Your task to perform on an android device: open app "Grab" (install if not already installed) Image 0: 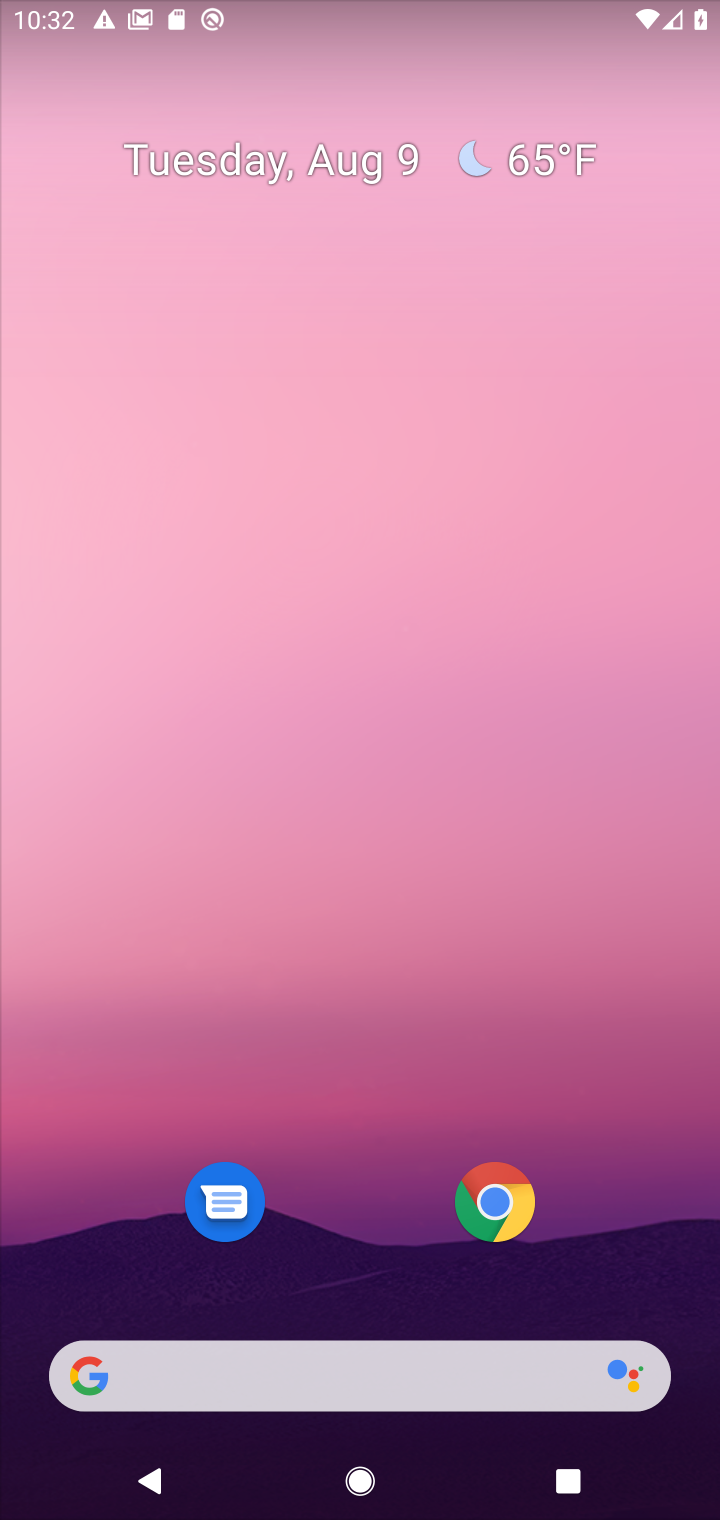
Step 0: drag from (313, 1301) to (267, 12)
Your task to perform on an android device: open app "Grab" (install if not already installed) Image 1: 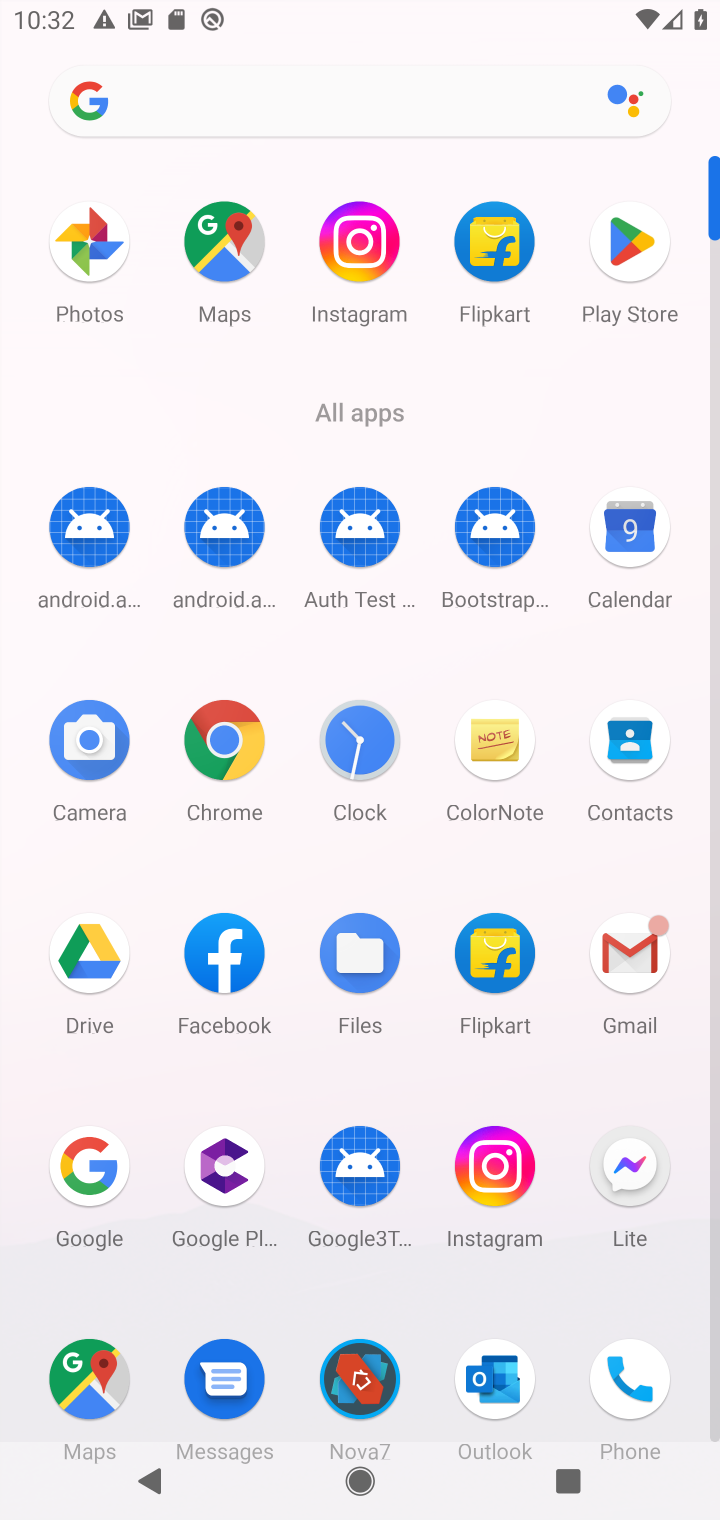
Step 1: click (629, 239)
Your task to perform on an android device: open app "Grab" (install if not already installed) Image 2: 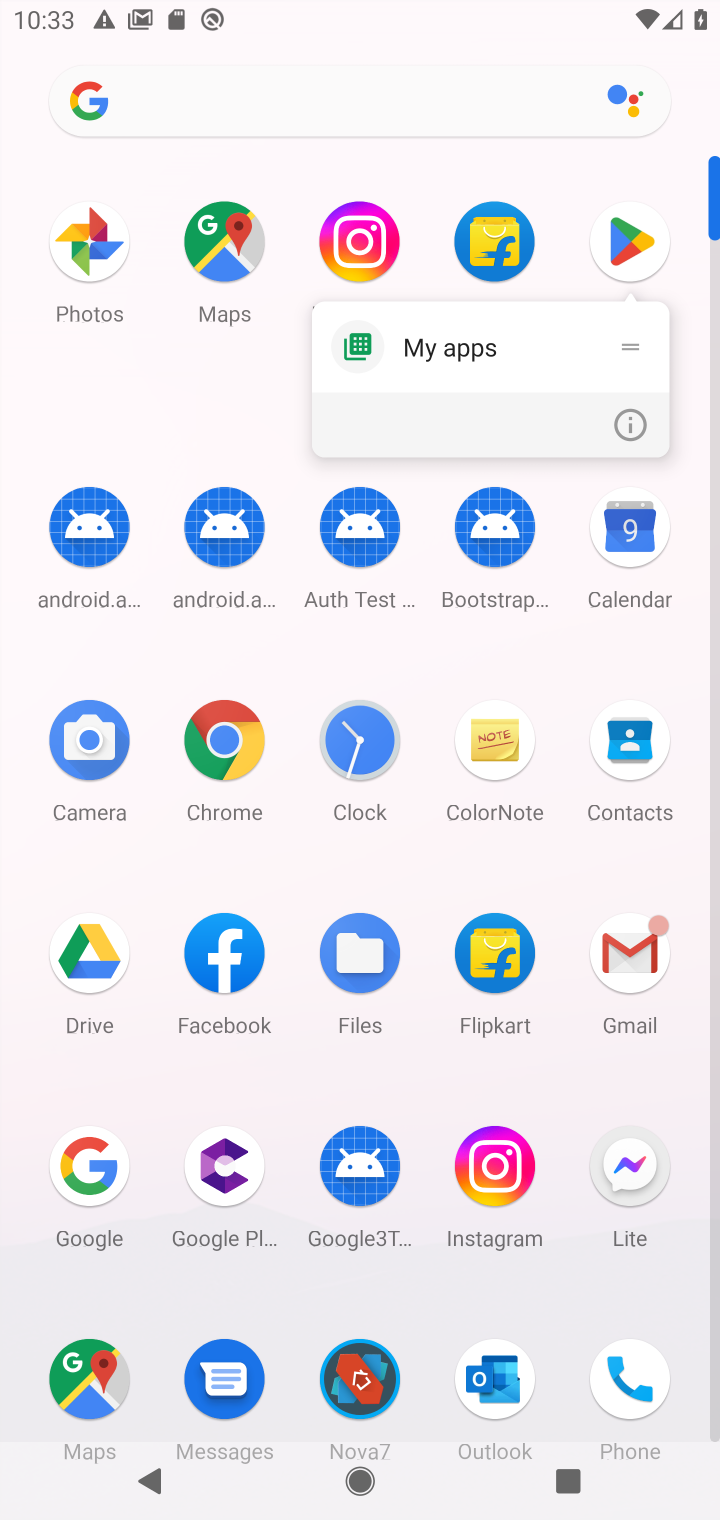
Step 2: click (622, 202)
Your task to perform on an android device: open app "Grab" (install if not already installed) Image 3: 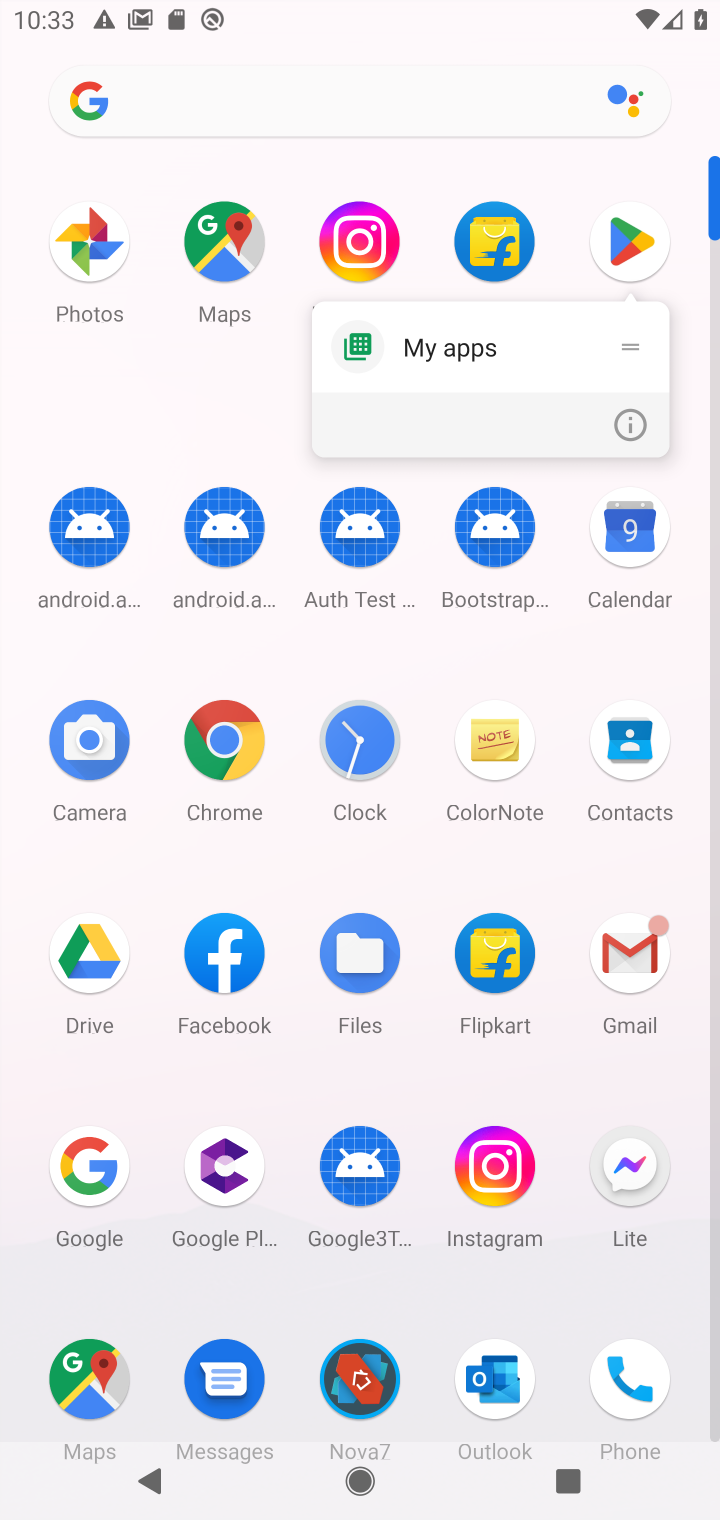
Step 3: click (598, 230)
Your task to perform on an android device: open app "Grab" (install if not already installed) Image 4: 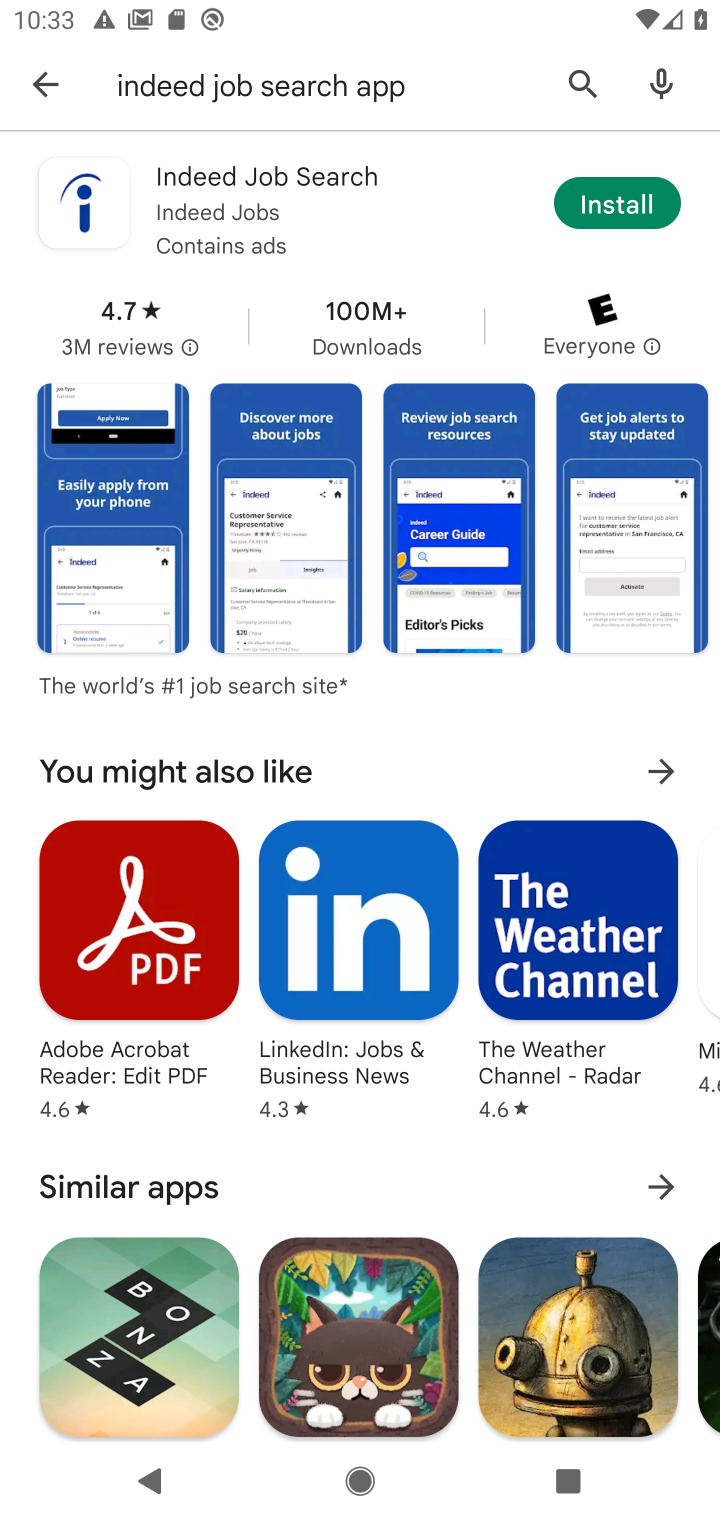
Step 4: click (585, 76)
Your task to perform on an android device: open app "Grab" (install if not already installed) Image 5: 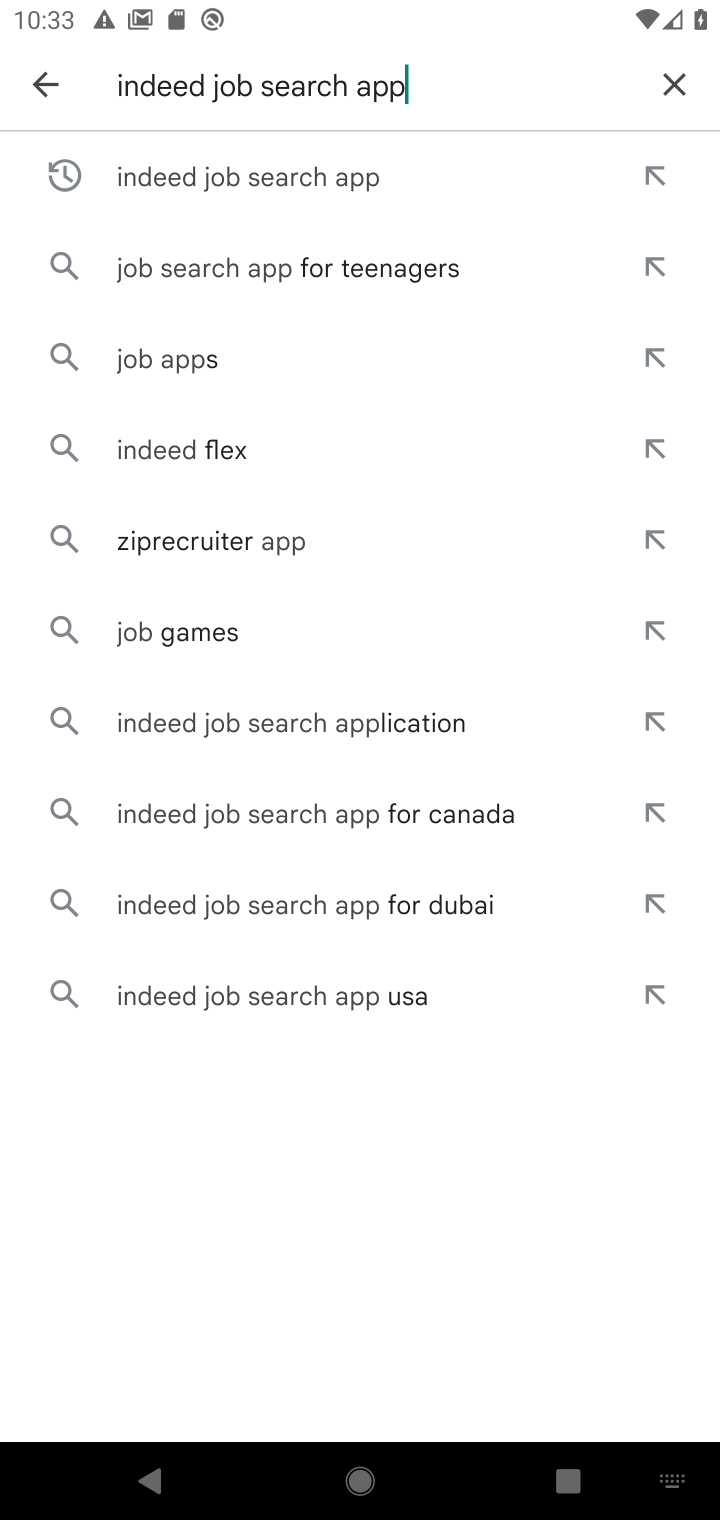
Step 5: click (656, 98)
Your task to perform on an android device: open app "Grab" (install if not already installed) Image 6: 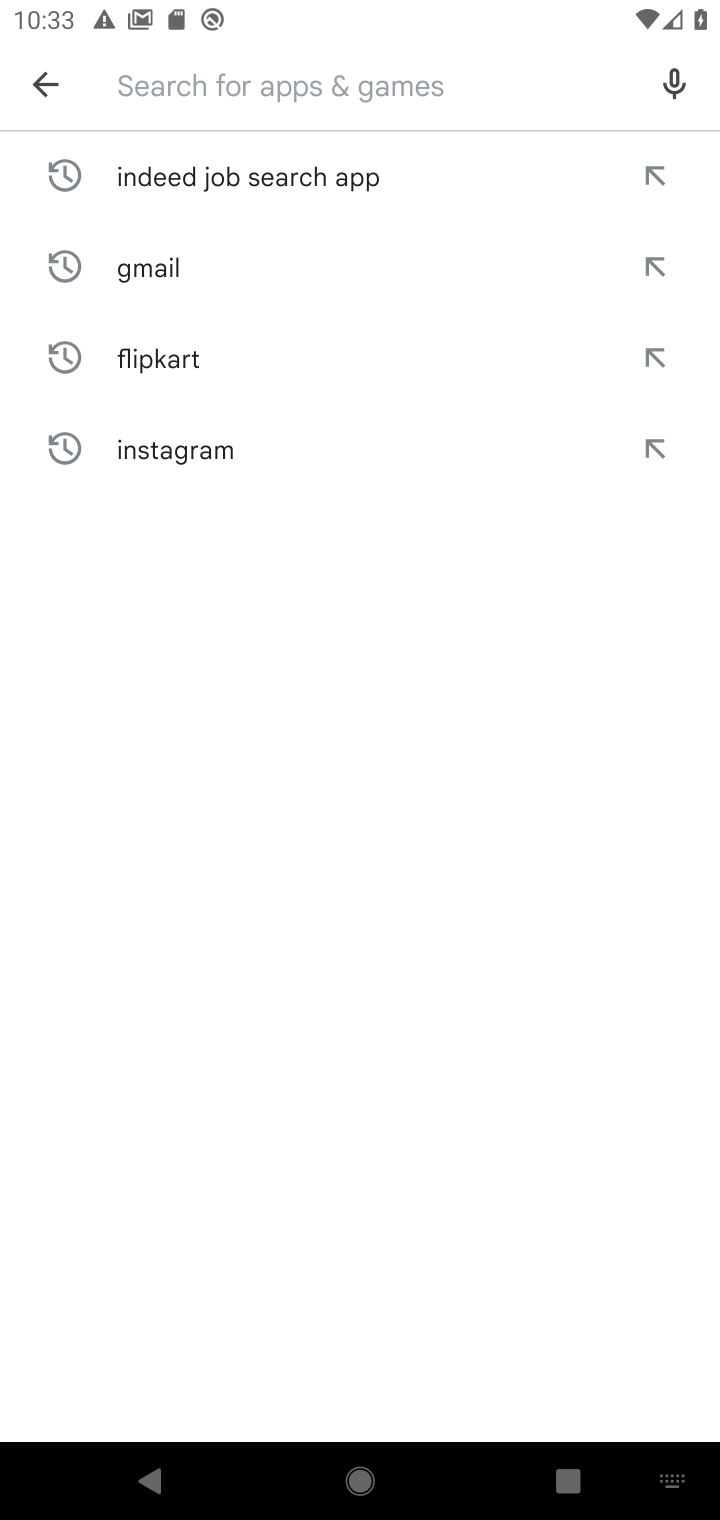
Step 6: type "grab"
Your task to perform on an android device: open app "Grab" (install if not already installed) Image 7: 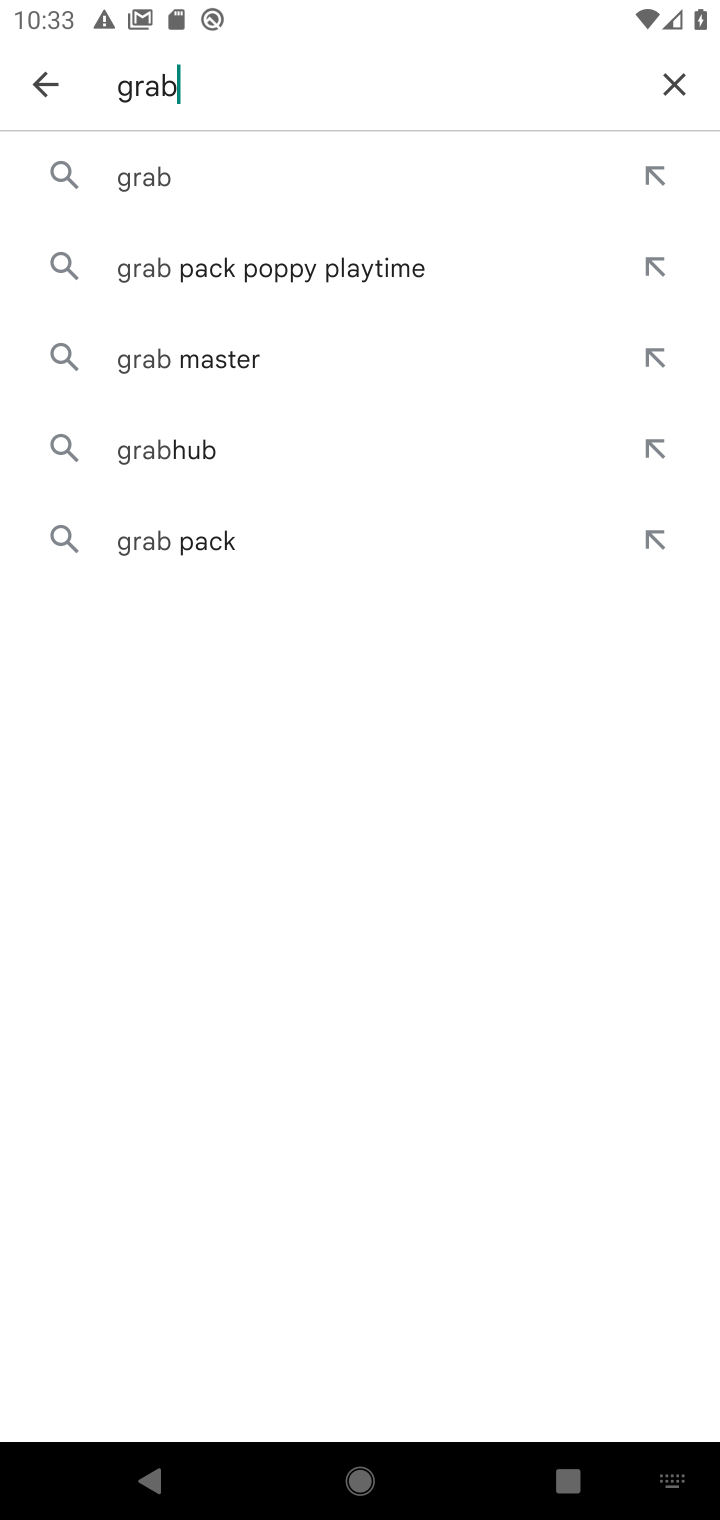
Step 7: click (160, 183)
Your task to perform on an android device: open app "Grab" (install if not already installed) Image 8: 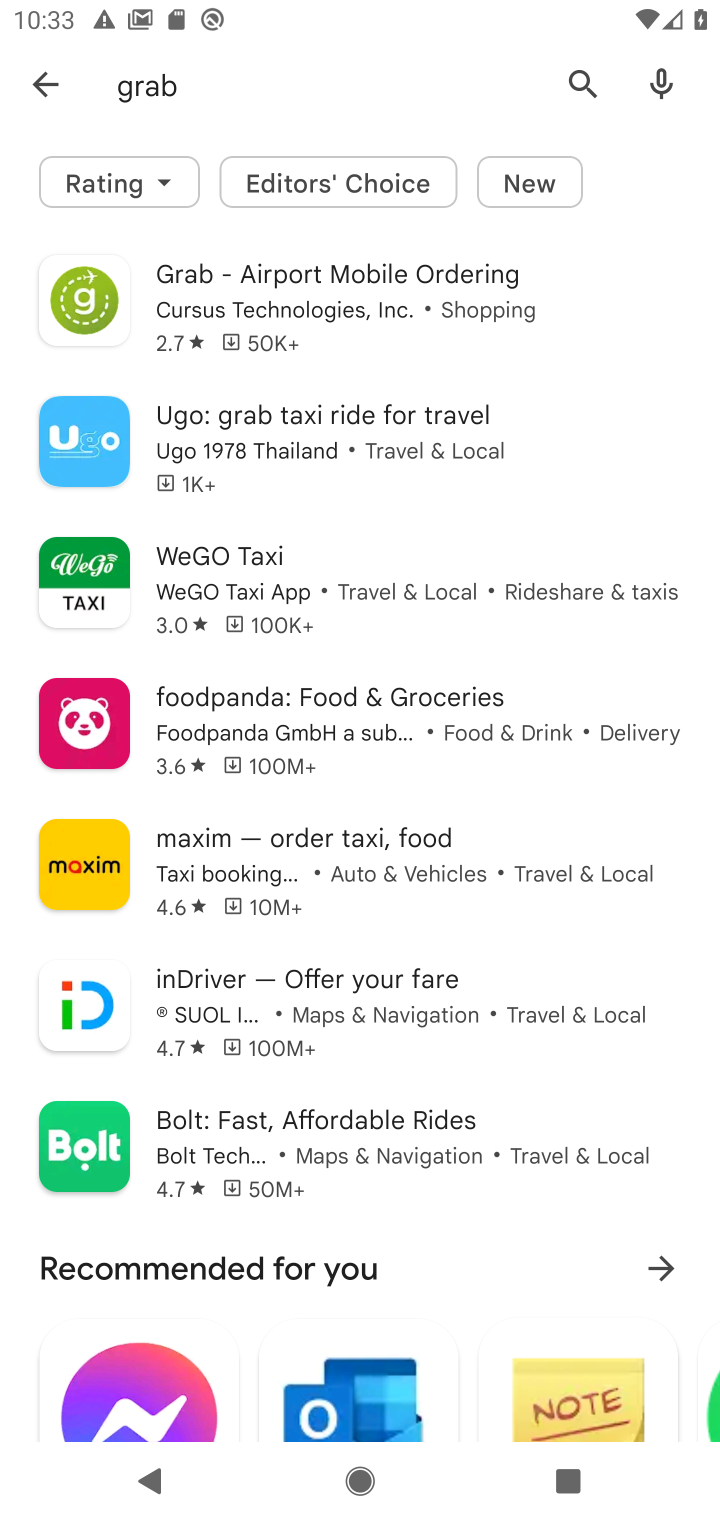
Step 8: click (417, 302)
Your task to perform on an android device: open app "Grab" (install if not already installed) Image 9: 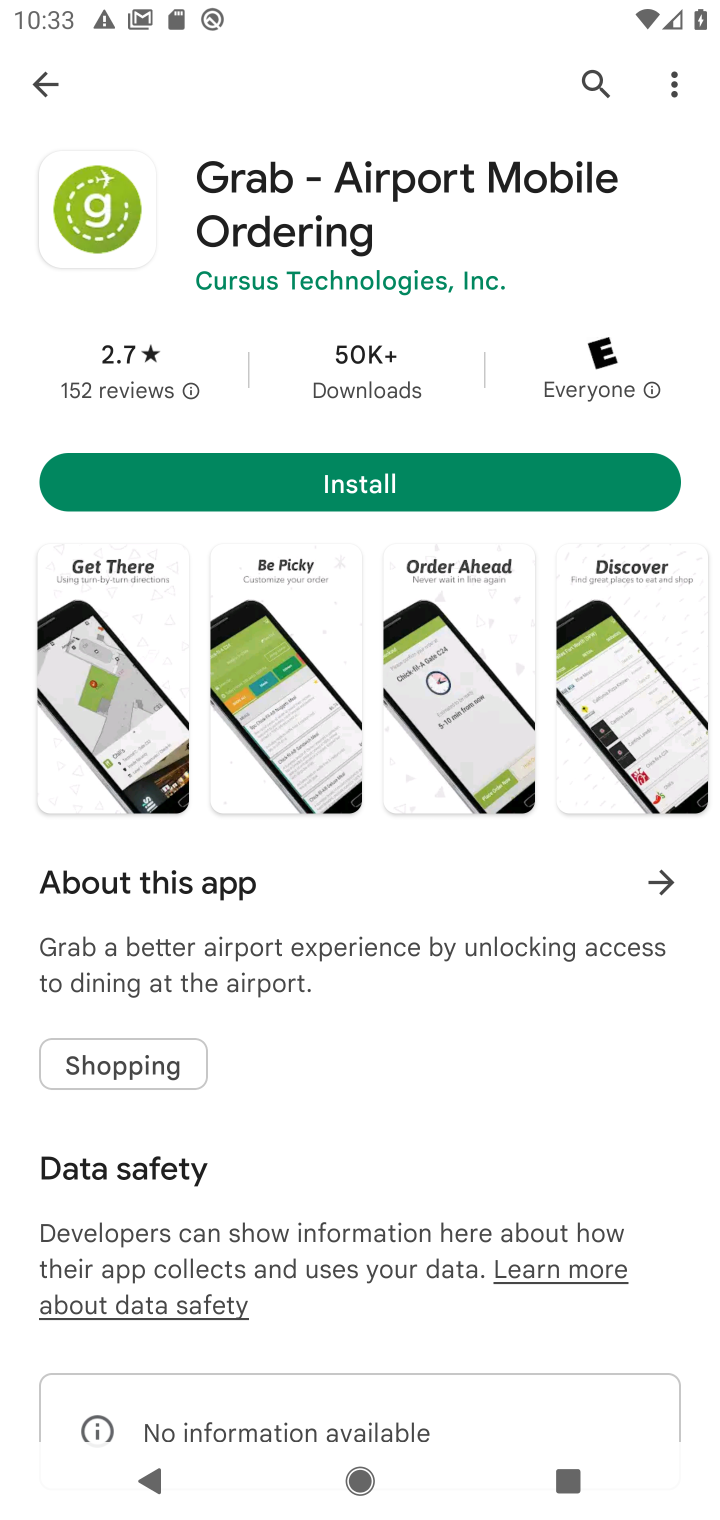
Step 9: click (364, 510)
Your task to perform on an android device: open app "Grab" (install if not already installed) Image 10: 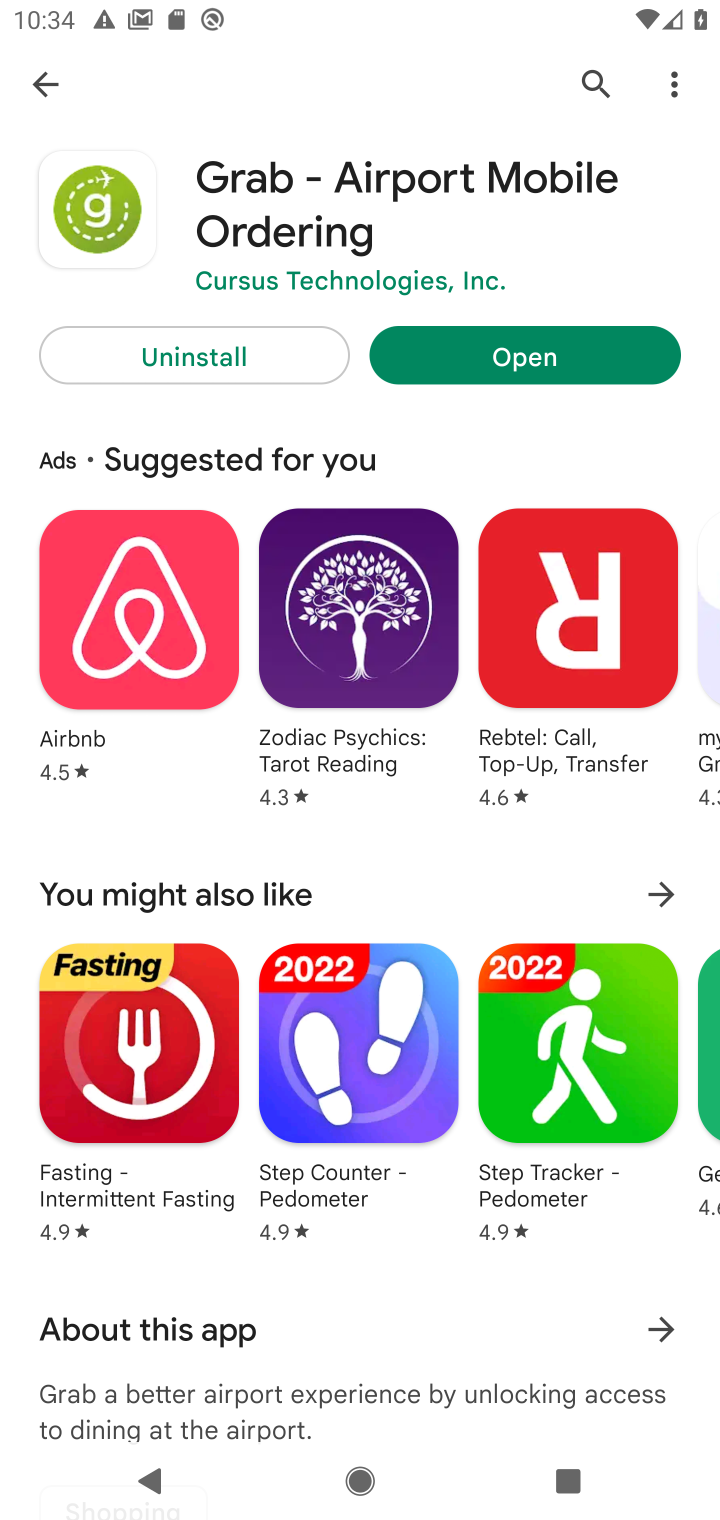
Step 10: click (506, 372)
Your task to perform on an android device: open app "Grab" (install if not already installed) Image 11: 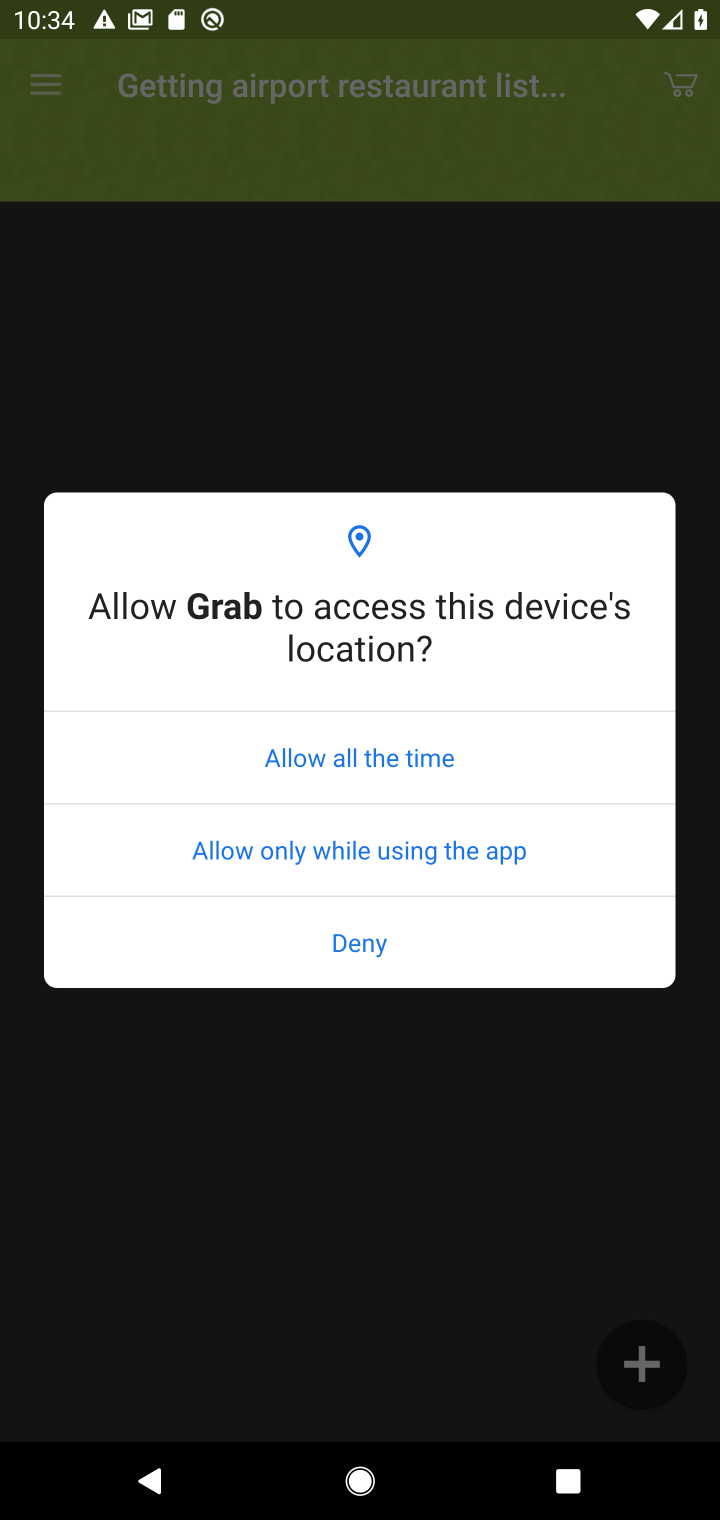
Step 11: task complete